Your task to perform on an android device: turn on translation in the chrome app Image 0: 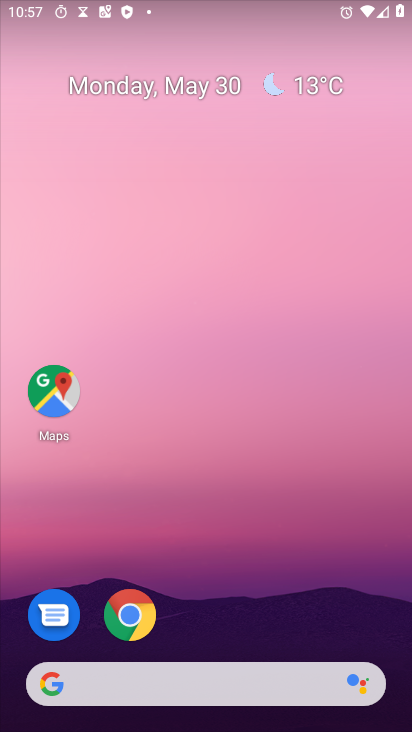
Step 0: drag from (264, 556) to (249, 10)
Your task to perform on an android device: turn on translation in the chrome app Image 1: 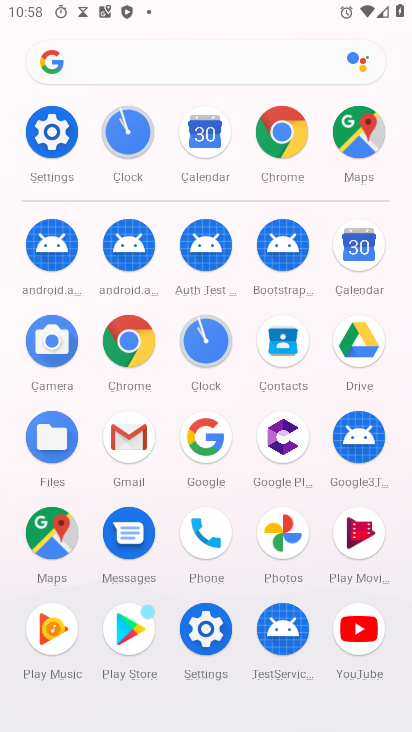
Step 1: click (289, 128)
Your task to perform on an android device: turn on translation in the chrome app Image 2: 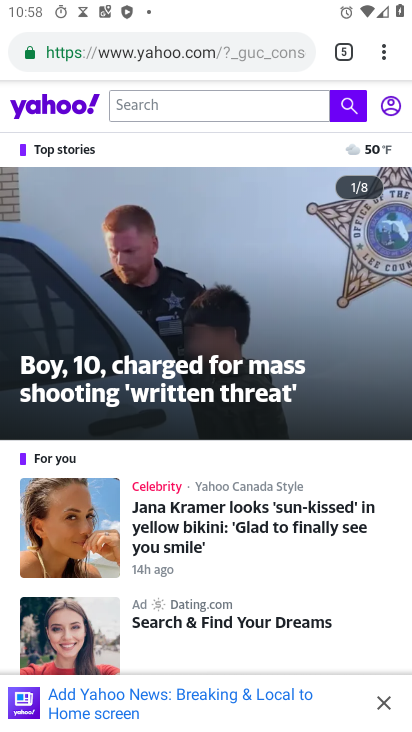
Step 2: drag from (387, 52) to (202, 638)
Your task to perform on an android device: turn on translation in the chrome app Image 3: 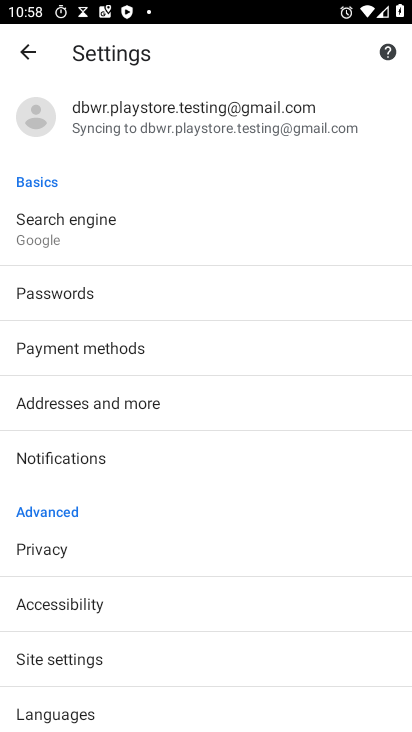
Step 3: drag from (166, 661) to (214, 320)
Your task to perform on an android device: turn on translation in the chrome app Image 4: 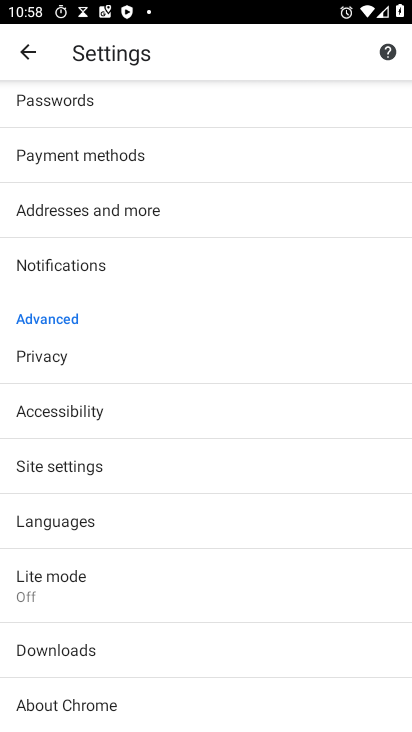
Step 4: click (79, 512)
Your task to perform on an android device: turn on translation in the chrome app Image 5: 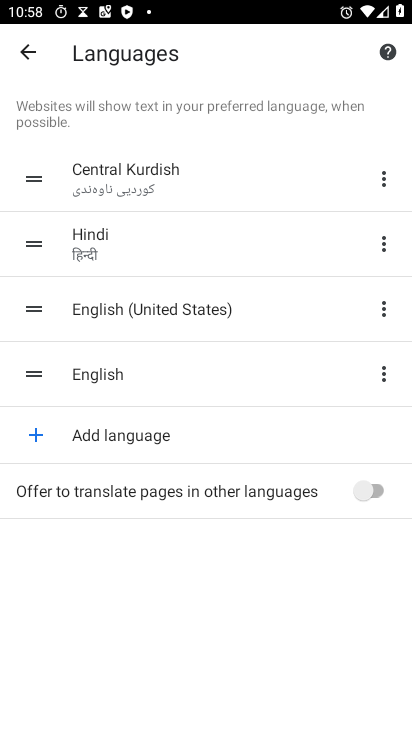
Step 5: click (373, 491)
Your task to perform on an android device: turn on translation in the chrome app Image 6: 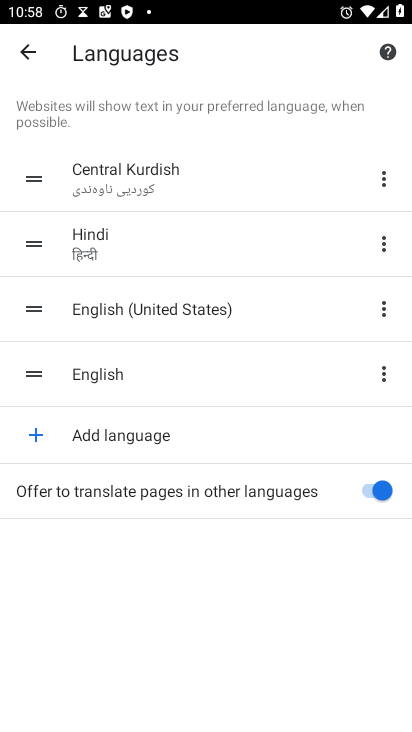
Step 6: task complete